Your task to perform on an android device: clear history in the chrome app Image 0: 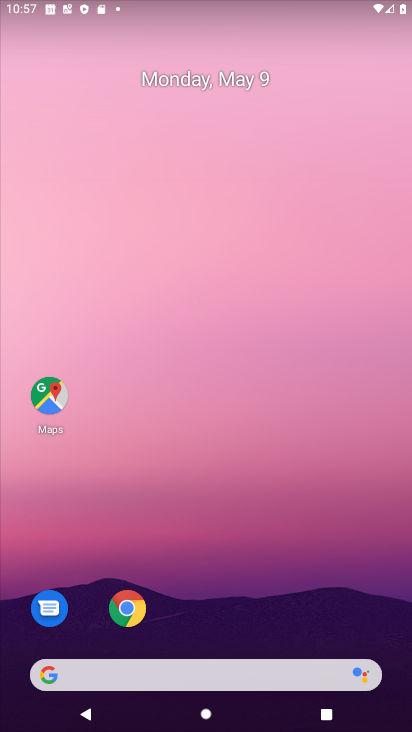
Step 0: click (148, 615)
Your task to perform on an android device: clear history in the chrome app Image 1: 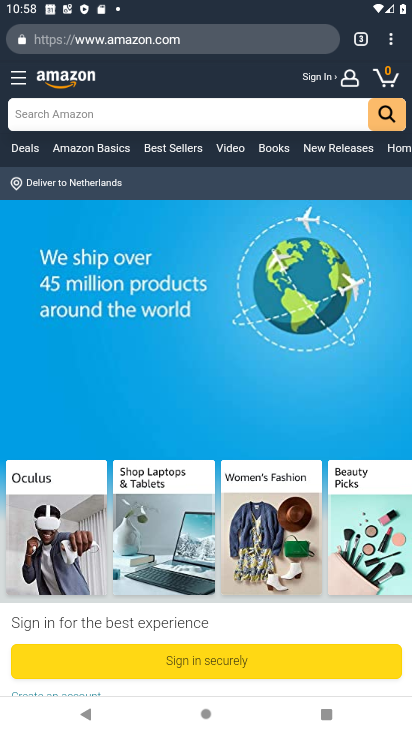
Step 1: drag from (391, 49) to (325, 264)
Your task to perform on an android device: clear history in the chrome app Image 2: 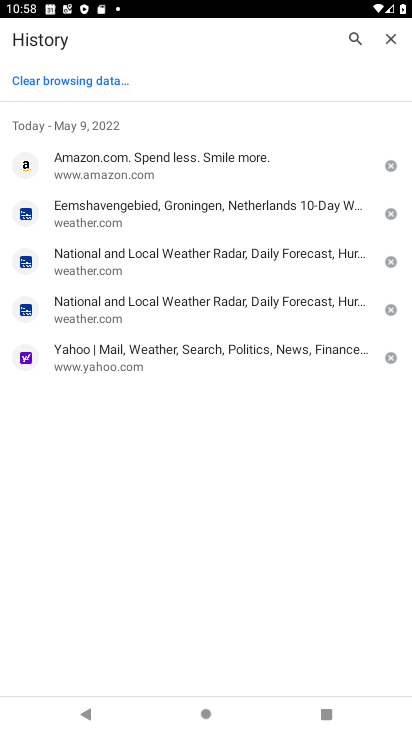
Step 2: click (122, 89)
Your task to perform on an android device: clear history in the chrome app Image 3: 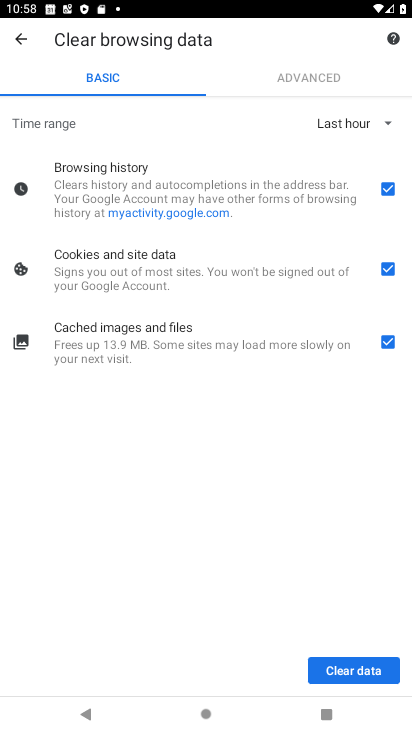
Step 3: click (353, 669)
Your task to perform on an android device: clear history in the chrome app Image 4: 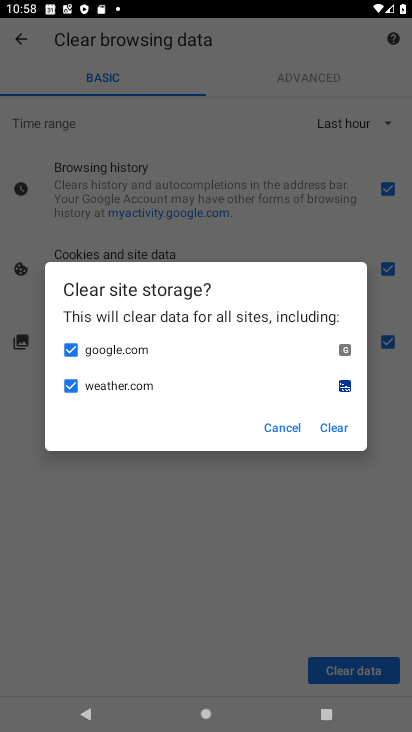
Step 4: click (345, 430)
Your task to perform on an android device: clear history in the chrome app Image 5: 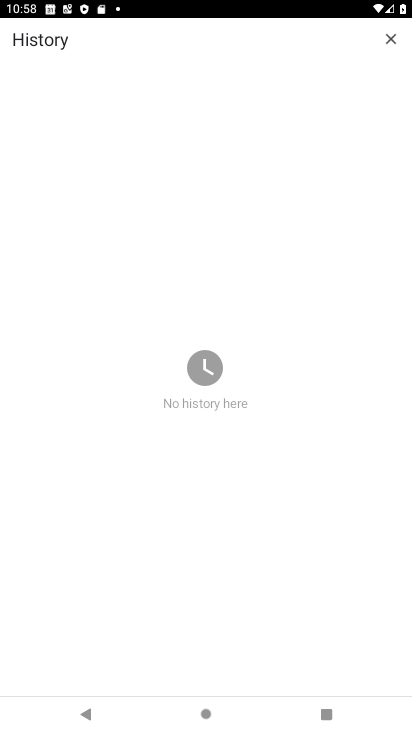
Step 5: task complete